Your task to perform on an android device: toggle notification dots Image 0: 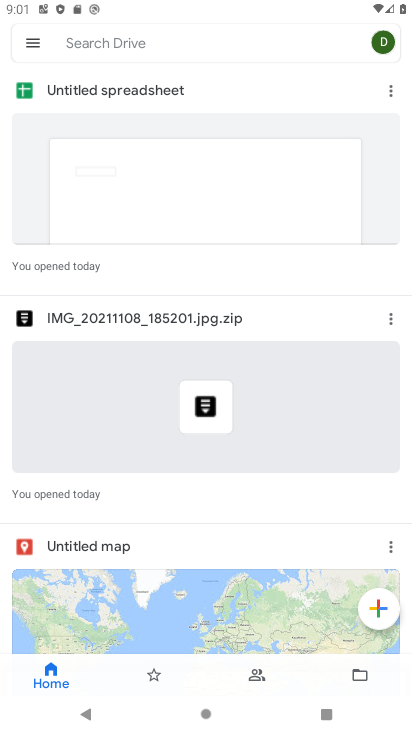
Step 0: press home button
Your task to perform on an android device: toggle notification dots Image 1: 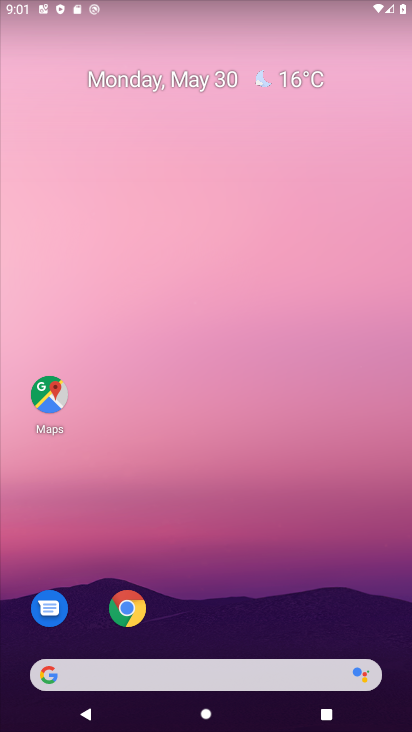
Step 1: drag from (398, 710) to (347, 80)
Your task to perform on an android device: toggle notification dots Image 2: 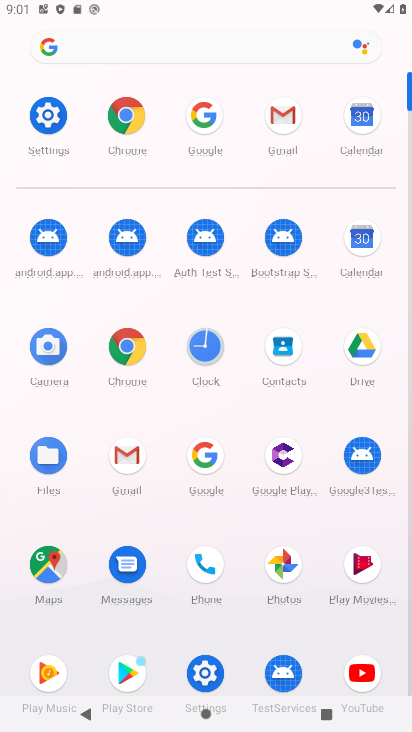
Step 2: click (52, 116)
Your task to perform on an android device: toggle notification dots Image 3: 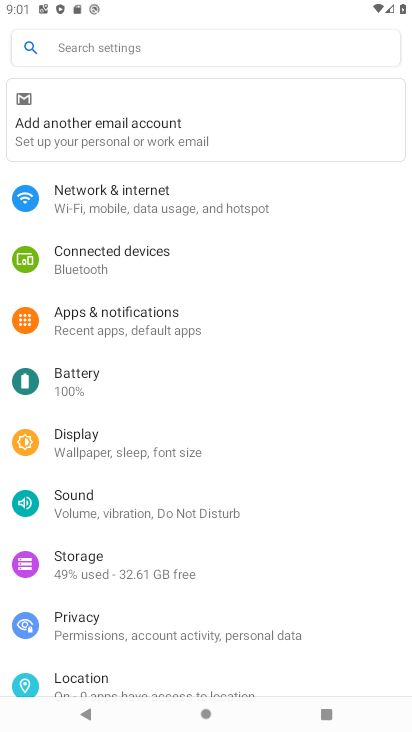
Step 3: click (127, 251)
Your task to perform on an android device: toggle notification dots Image 4: 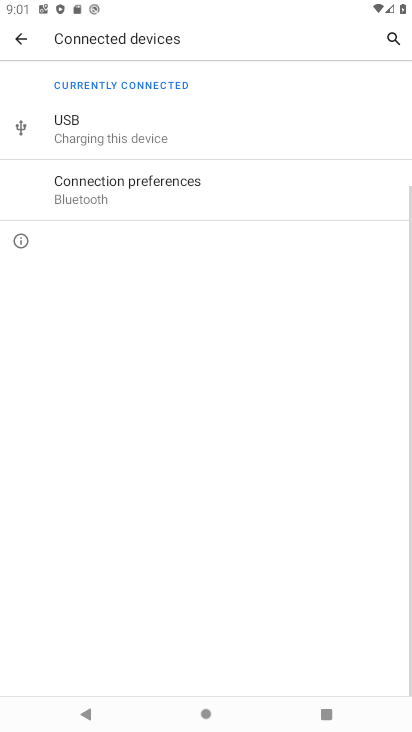
Step 4: click (20, 33)
Your task to perform on an android device: toggle notification dots Image 5: 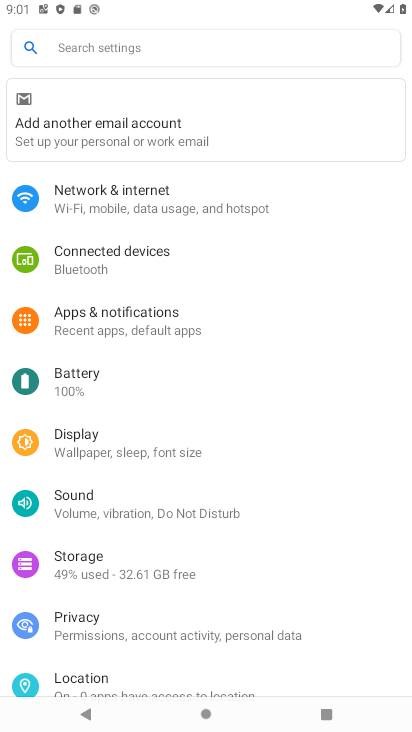
Step 5: click (121, 315)
Your task to perform on an android device: toggle notification dots Image 6: 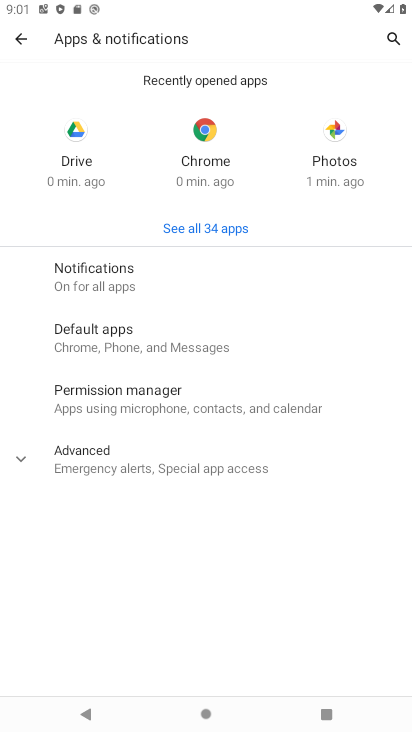
Step 6: click (92, 278)
Your task to perform on an android device: toggle notification dots Image 7: 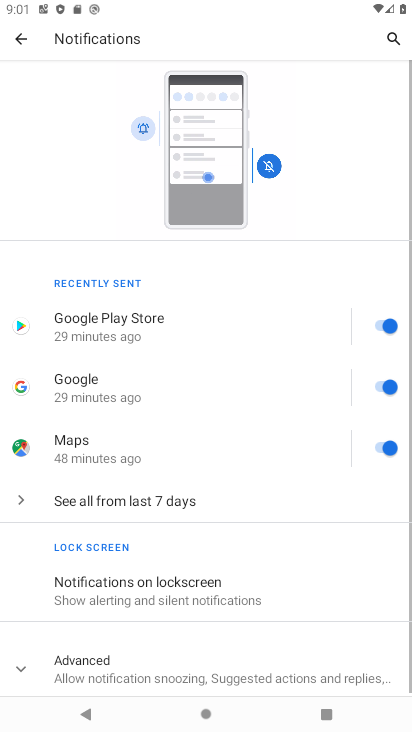
Step 7: drag from (250, 644) to (230, 241)
Your task to perform on an android device: toggle notification dots Image 8: 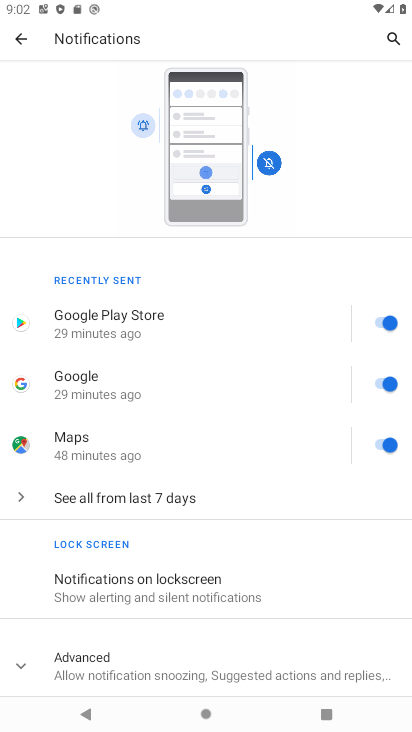
Step 8: click (19, 666)
Your task to perform on an android device: toggle notification dots Image 9: 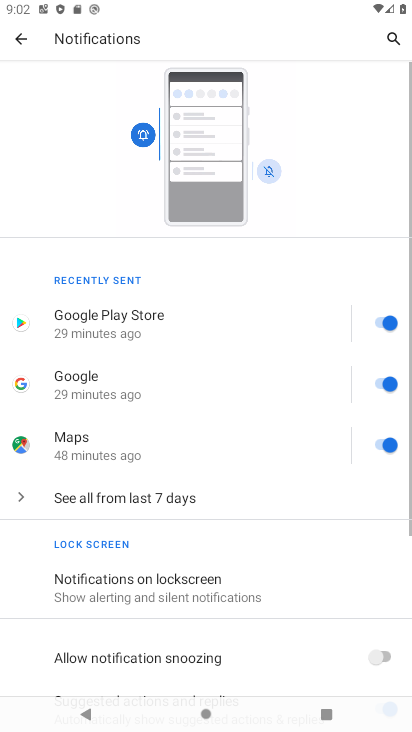
Step 9: drag from (305, 634) to (288, 190)
Your task to perform on an android device: toggle notification dots Image 10: 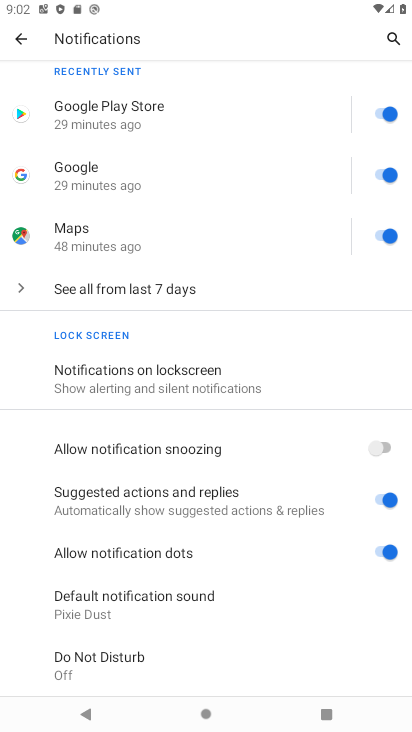
Step 10: click (375, 552)
Your task to perform on an android device: toggle notification dots Image 11: 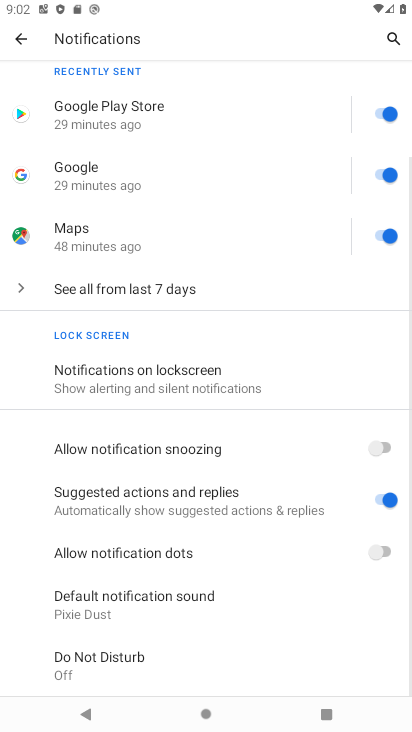
Step 11: task complete